Your task to perform on an android device: Open settings Image 0: 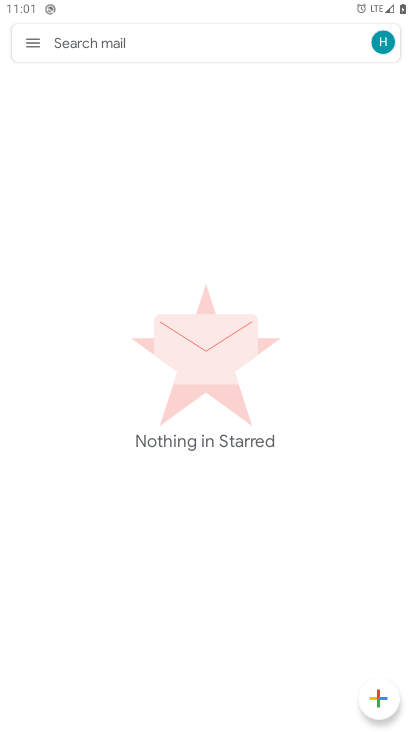
Step 0: press home button
Your task to perform on an android device: Open settings Image 1: 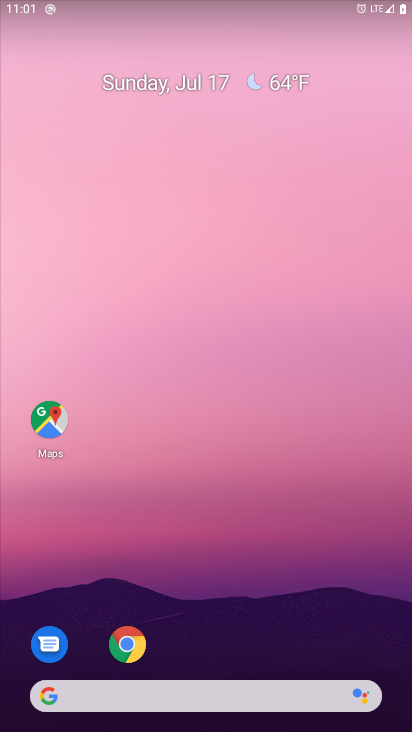
Step 1: drag from (251, 647) to (171, 189)
Your task to perform on an android device: Open settings Image 2: 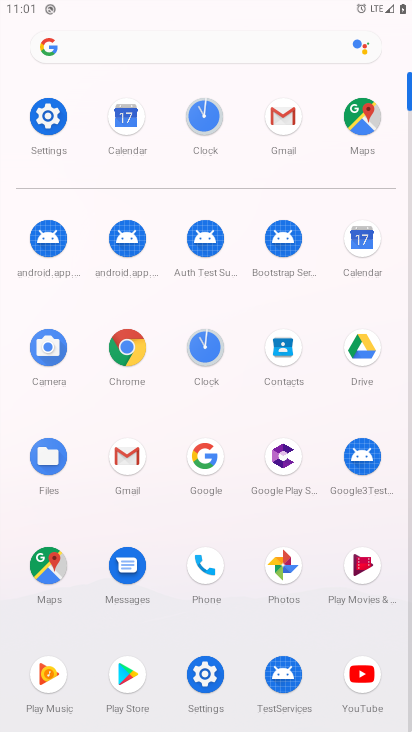
Step 2: click (49, 113)
Your task to perform on an android device: Open settings Image 3: 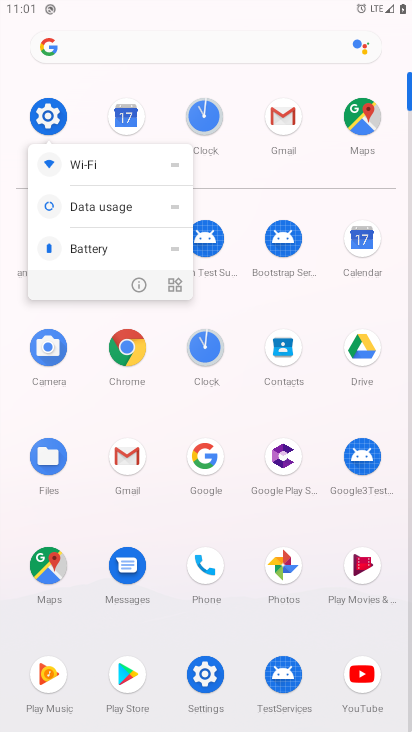
Step 3: click (47, 124)
Your task to perform on an android device: Open settings Image 4: 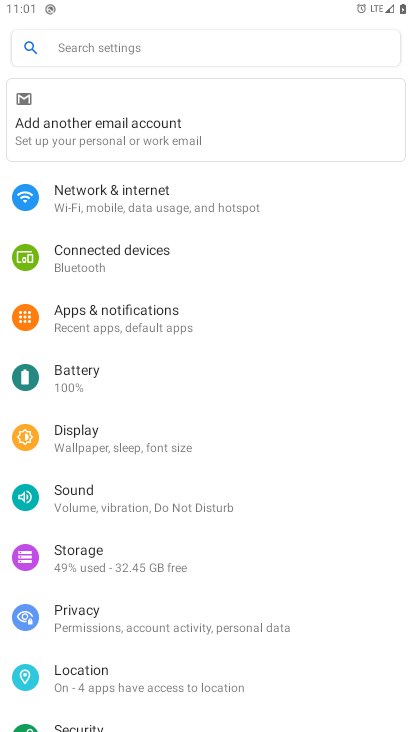
Step 4: task complete